Your task to perform on an android device: add a label to a message in the gmail app Image 0: 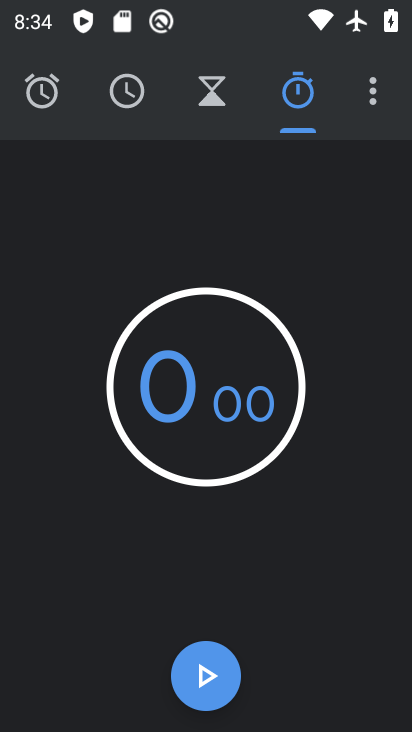
Step 0: press home button
Your task to perform on an android device: add a label to a message in the gmail app Image 1: 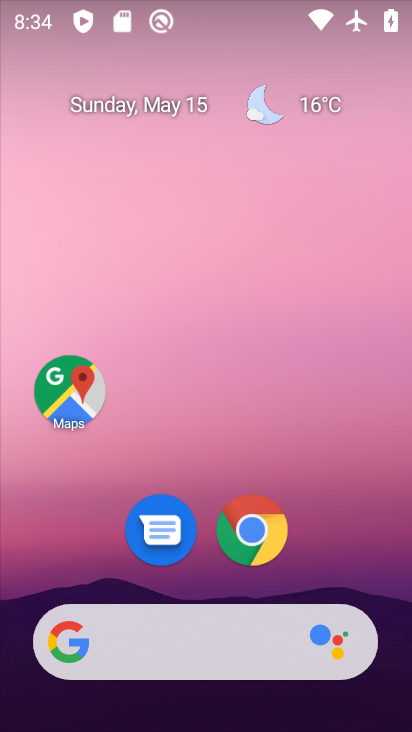
Step 1: drag from (210, 724) to (210, 246)
Your task to perform on an android device: add a label to a message in the gmail app Image 2: 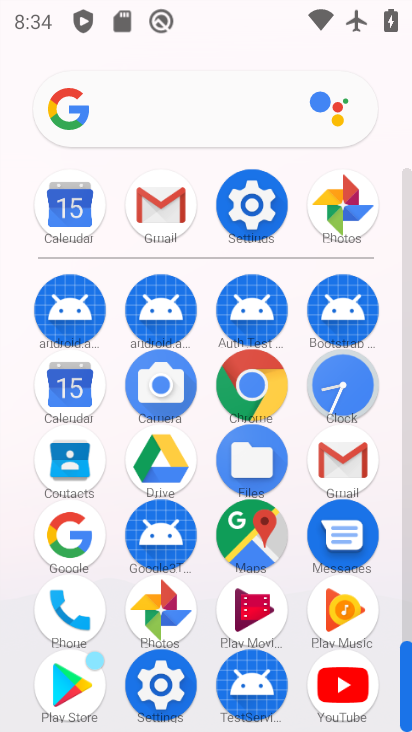
Step 2: click (153, 206)
Your task to perform on an android device: add a label to a message in the gmail app Image 3: 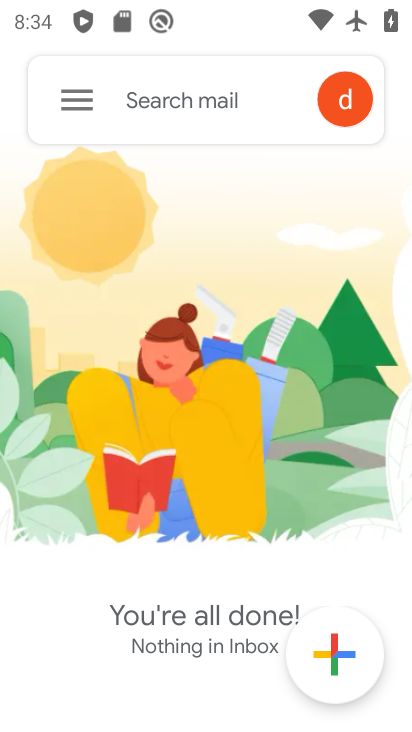
Step 3: task complete